Your task to perform on an android device: Go to network settings Image 0: 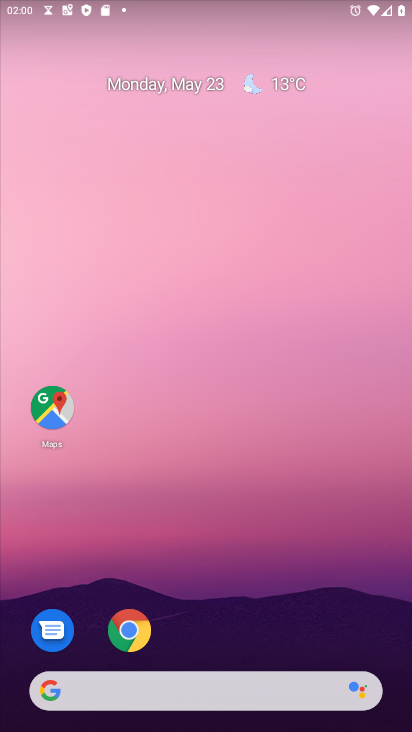
Step 0: drag from (291, 575) to (194, 56)
Your task to perform on an android device: Go to network settings Image 1: 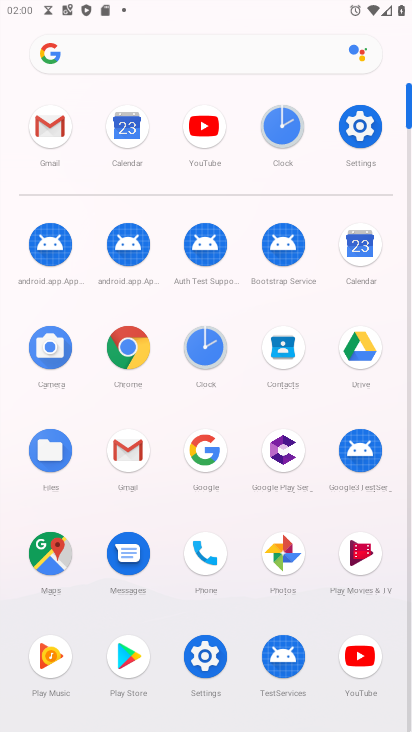
Step 1: click (348, 141)
Your task to perform on an android device: Go to network settings Image 2: 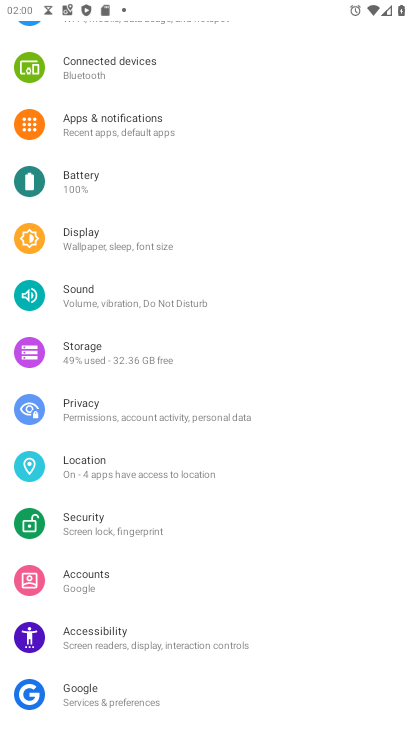
Step 2: drag from (185, 147) to (195, 573)
Your task to perform on an android device: Go to network settings Image 3: 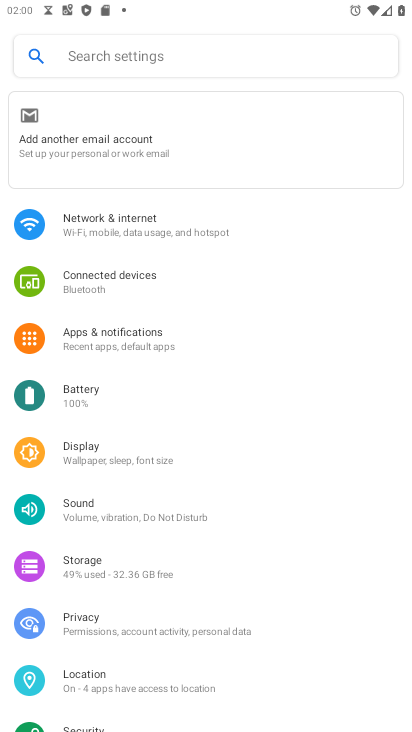
Step 3: click (162, 229)
Your task to perform on an android device: Go to network settings Image 4: 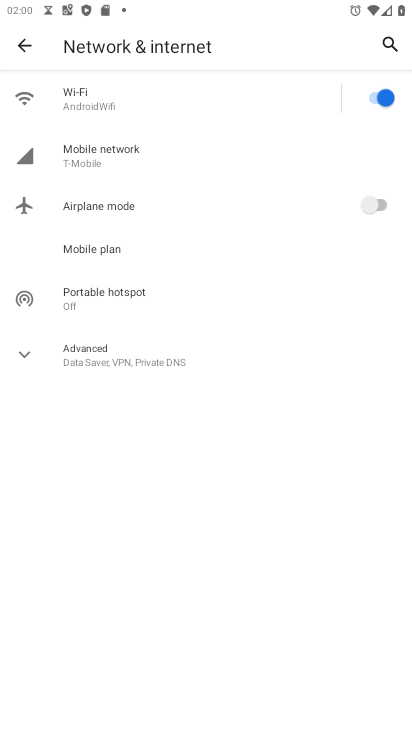
Step 4: task complete